Your task to perform on an android device: find photos in the google photos app Image 0: 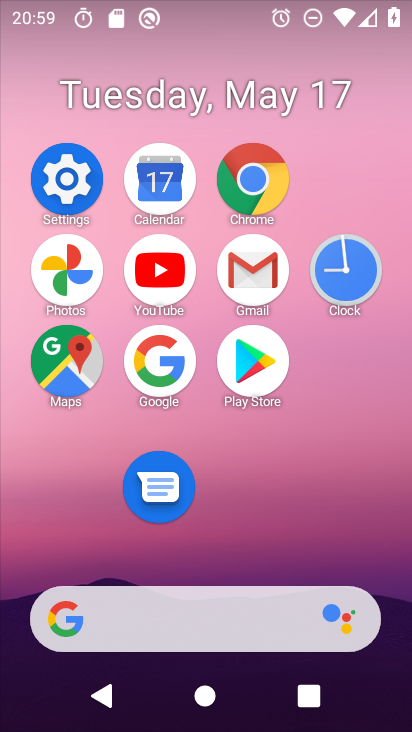
Step 0: click (57, 268)
Your task to perform on an android device: find photos in the google photos app Image 1: 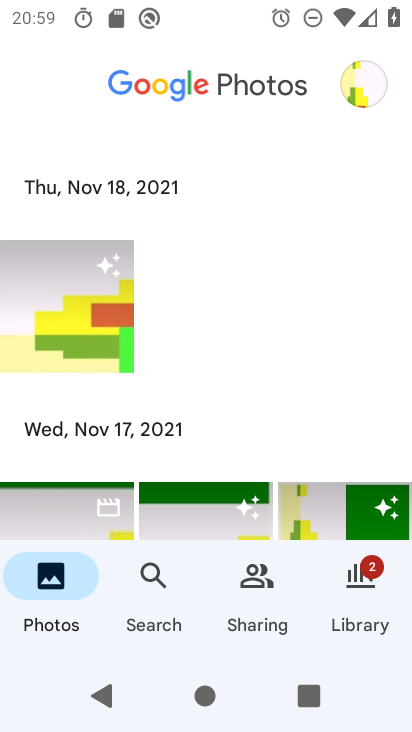
Step 1: click (57, 346)
Your task to perform on an android device: find photos in the google photos app Image 2: 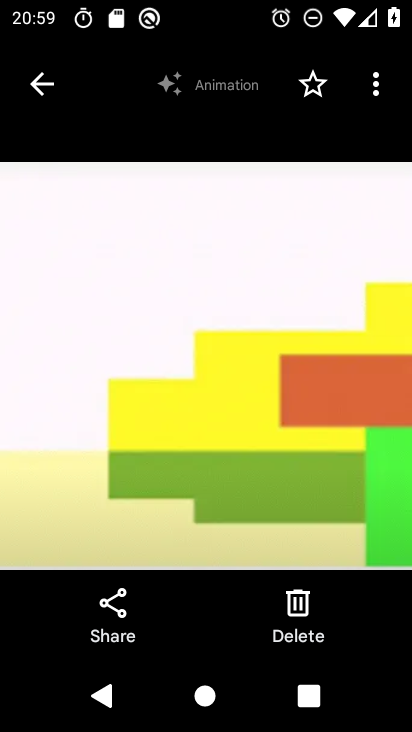
Step 2: task complete